Your task to perform on an android device: Open Maps and search for coffee Image 0: 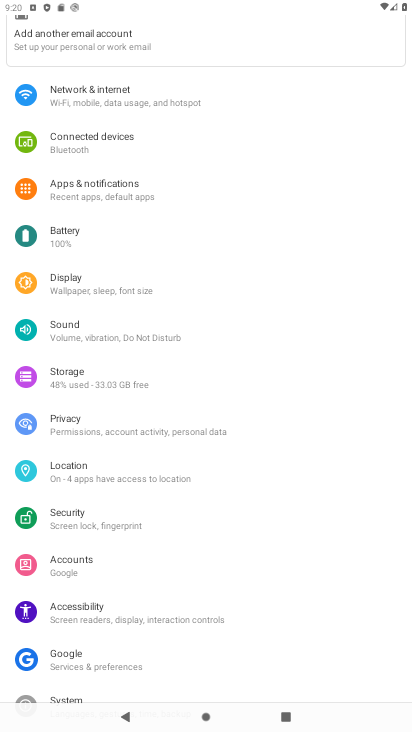
Step 0: press home button
Your task to perform on an android device: Open Maps and search for coffee Image 1: 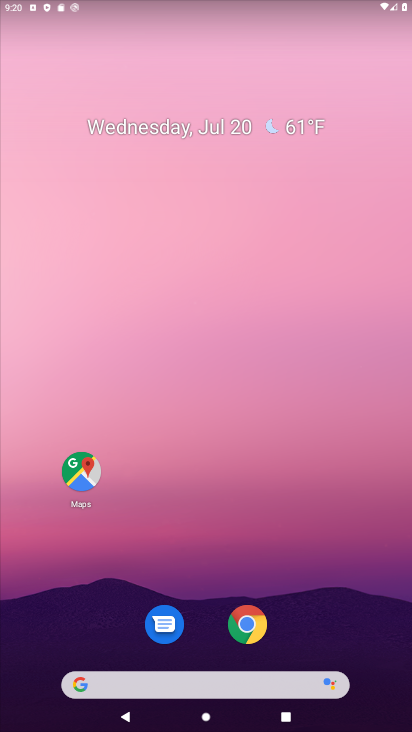
Step 1: click (58, 477)
Your task to perform on an android device: Open Maps and search for coffee Image 2: 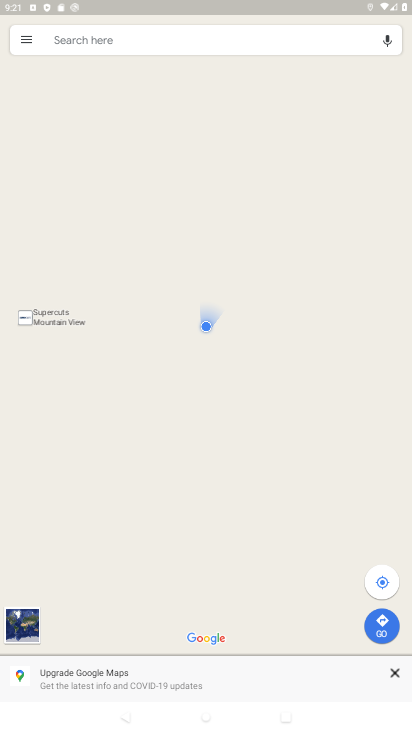
Step 2: click (133, 40)
Your task to perform on an android device: Open Maps and search for coffee Image 3: 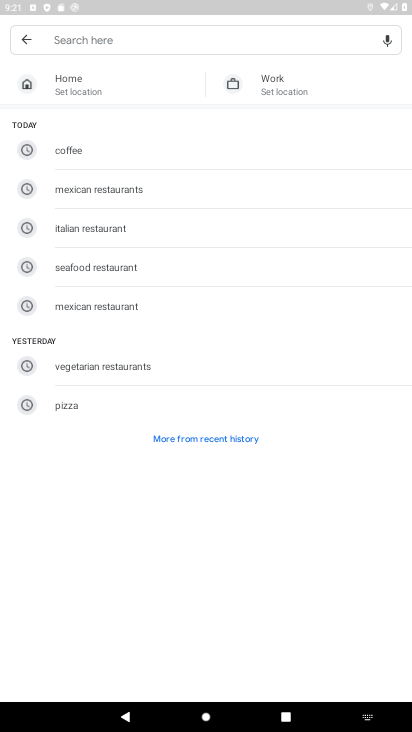
Step 3: click (111, 150)
Your task to perform on an android device: Open Maps and search for coffee Image 4: 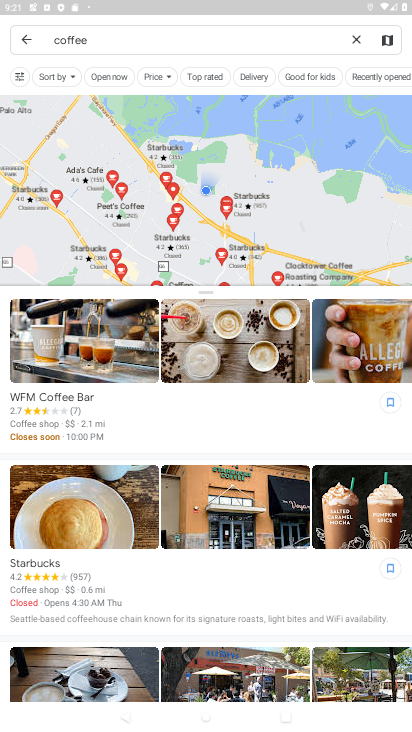
Step 4: task complete